Your task to perform on an android device: What's the weather going to be this weekend? Image 0: 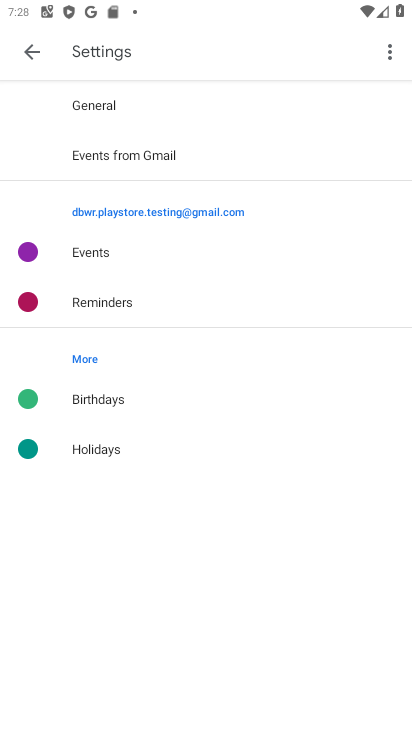
Step 0: press home button
Your task to perform on an android device: What's the weather going to be this weekend? Image 1: 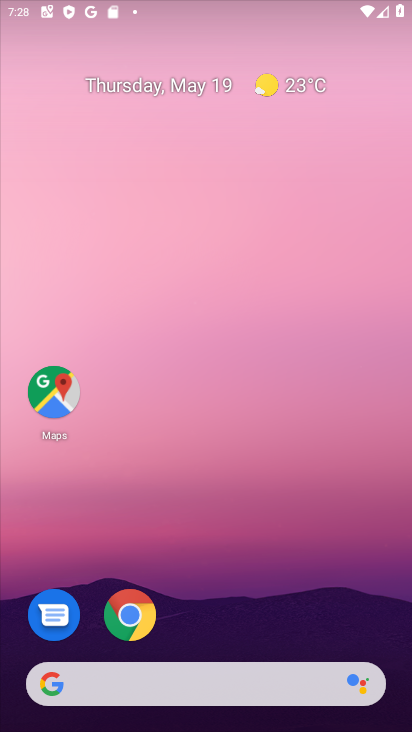
Step 1: drag from (361, 643) to (334, 27)
Your task to perform on an android device: What's the weather going to be this weekend? Image 2: 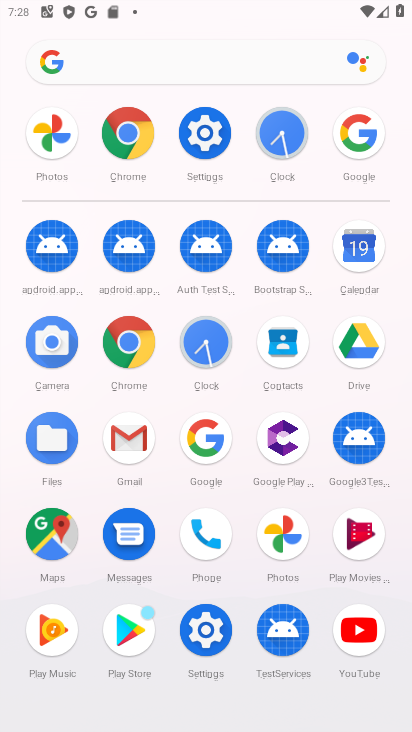
Step 2: click (359, 125)
Your task to perform on an android device: What's the weather going to be this weekend? Image 3: 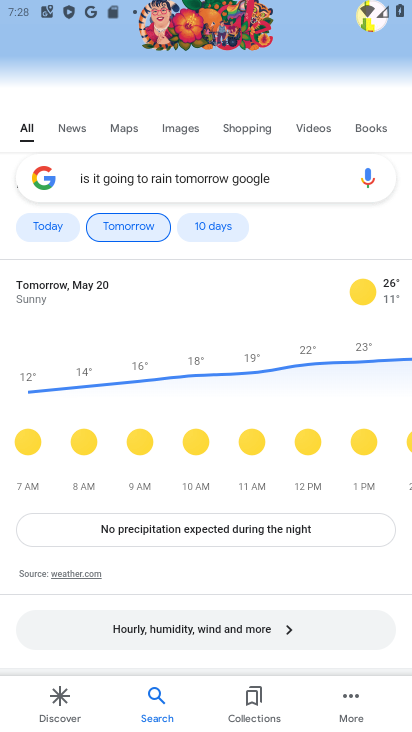
Step 3: press back button
Your task to perform on an android device: What's the weather going to be this weekend? Image 4: 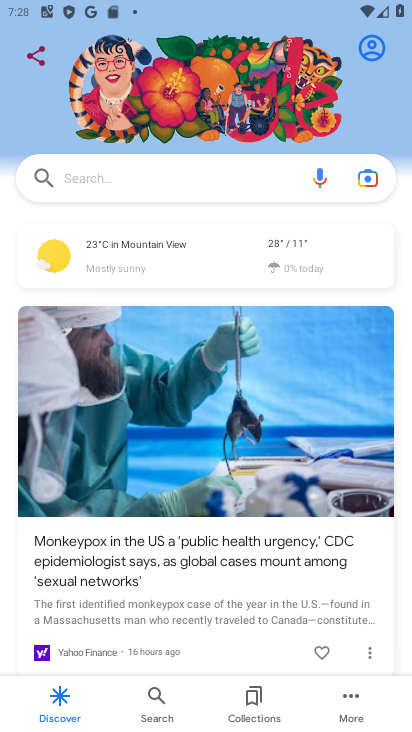
Step 4: click (161, 187)
Your task to perform on an android device: What's the weather going to be this weekend? Image 5: 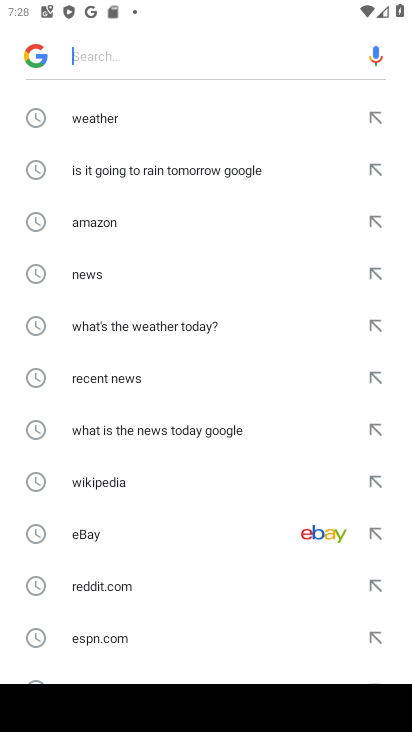
Step 5: drag from (144, 576) to (224, 242)
Your task to perform on an android device: What's the weather going to be this weekend? Image 6: 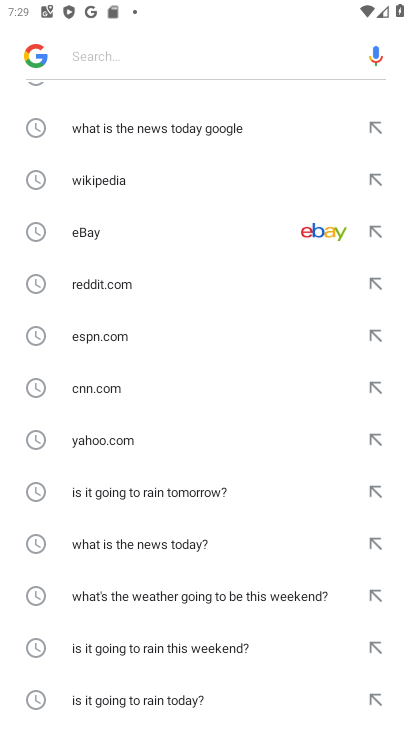
Step 6: click (202, 601)
Your task to perform on an android device: What's the weather going to be this weekend? Image 7: 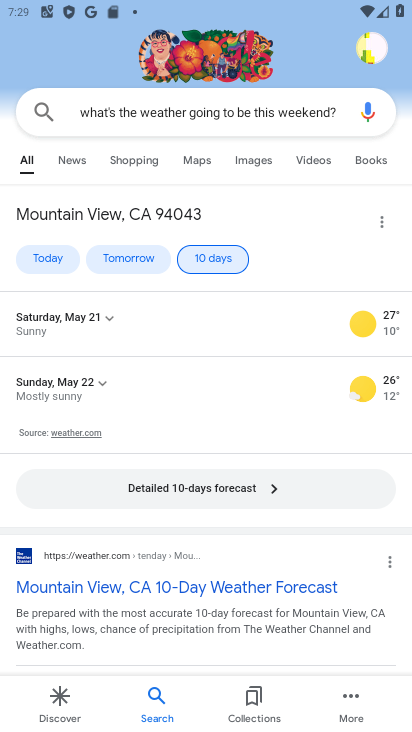
Step 7: task complete